Your task to perform on an android device: turn notification dots off Image 0: 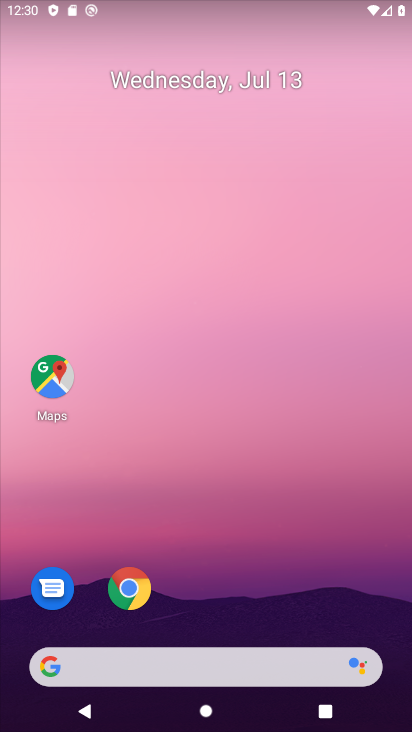
Step 0: drag from (203, 622) to (226, 195)
Your task to perform on an android device: turn notification dots off Image 1: 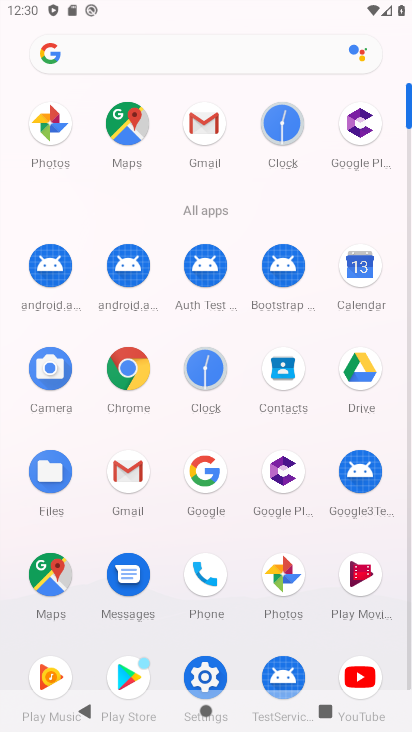
Step 1: click (198, 663)
Your task to perform on an android device: turn notification dots off Image 2: 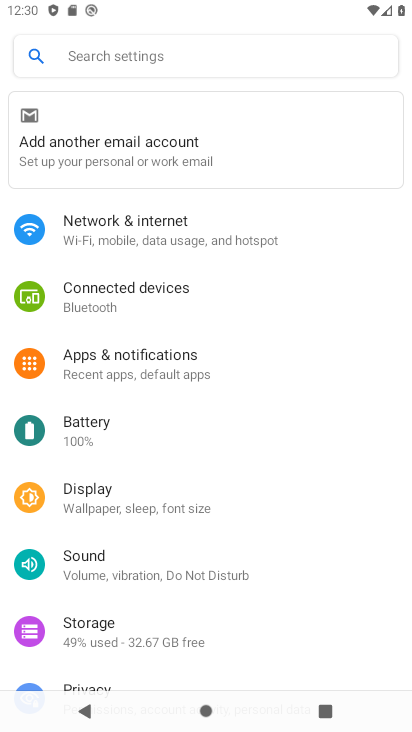
Step 2: click (144, 352)
Your task to perform on an android device: turn notification dots off Image 3: 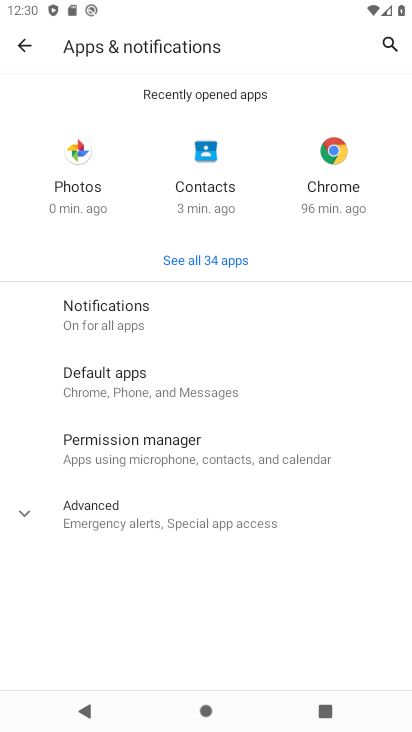
Step 3: click (178, 310)
Your task to perform on an android device: turn notification dots off Image 4: 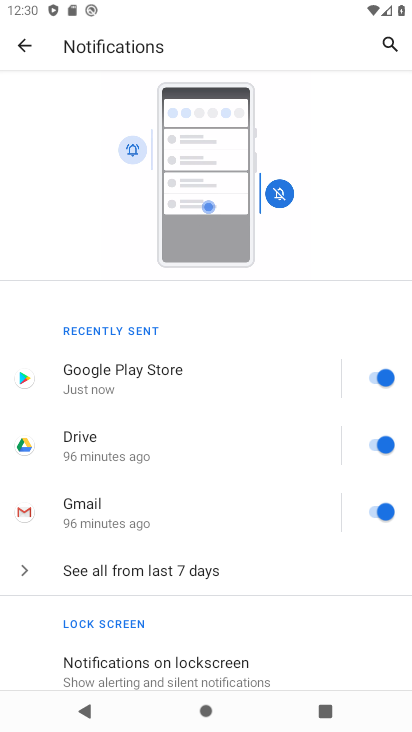
Step 4: drag from (233, 582) to (345, 43)
Your task to perform on an android device: turn notification dots off Image 5: 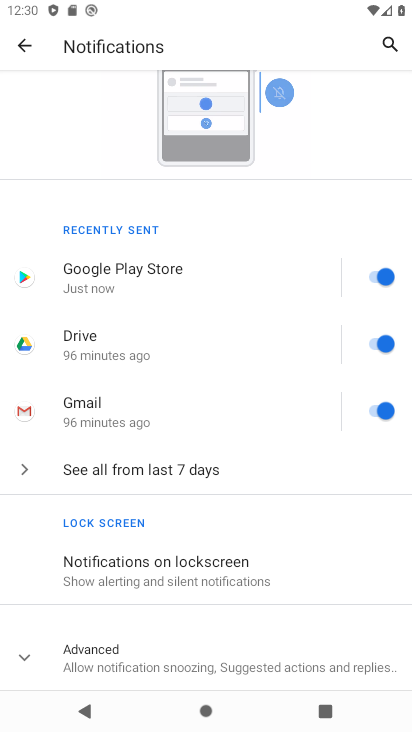
Step 5: click (135, 656)
Your task to perform on an android device: turn notification dots off Image 6: 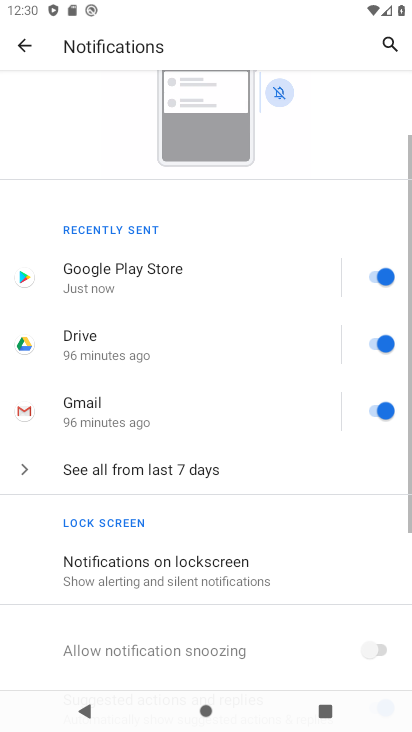
Step 6: drag from (135, 656) to (238, 140)
Your task to perform on an android device: turn notification dots off Image 7: 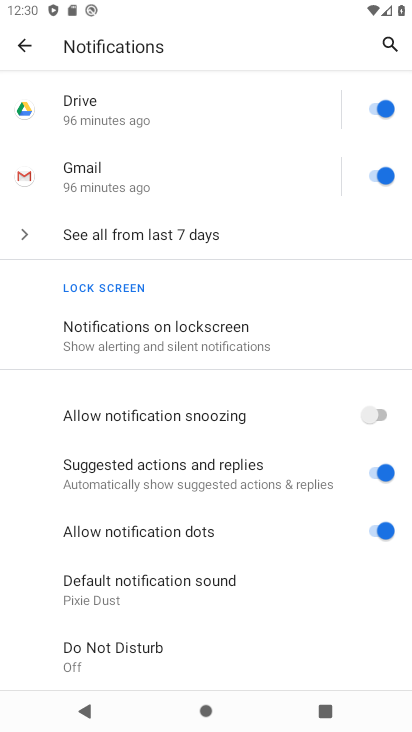
Step 7: click (384, 522)
Your task to perform on an android device: turn notification dots off Image 8: 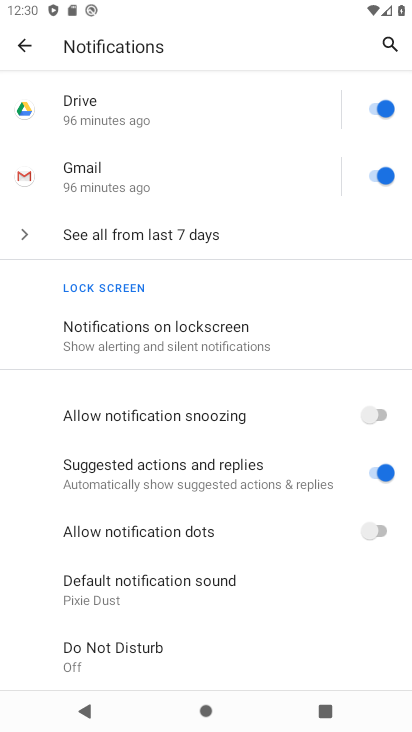
Step 8: task complete